Your task to perform on an android device: Go to ESPN.com Image 0: 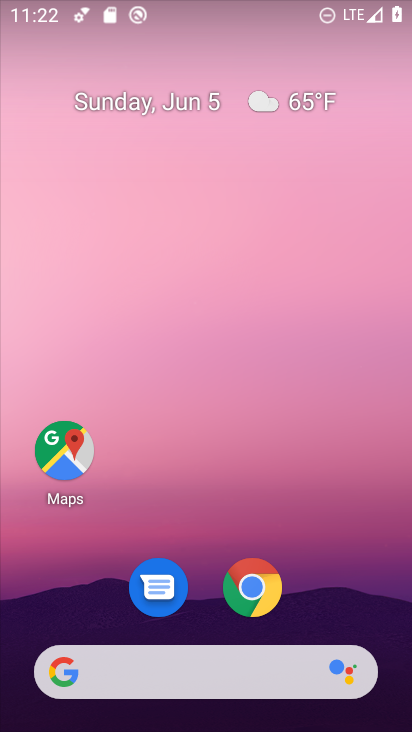
Step 0: click (251, 593)
Your task to perform on an android device: Go to ESPN.com Image 1: 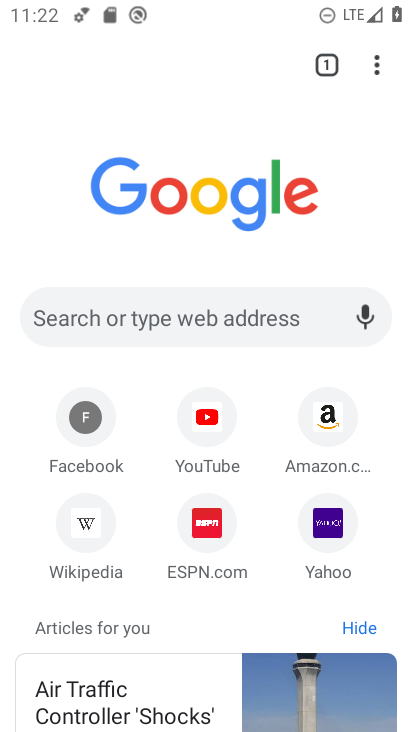
Step 1: click (200, 540)
Your task to perform on an android device: Go to ESPN.com Image 2: 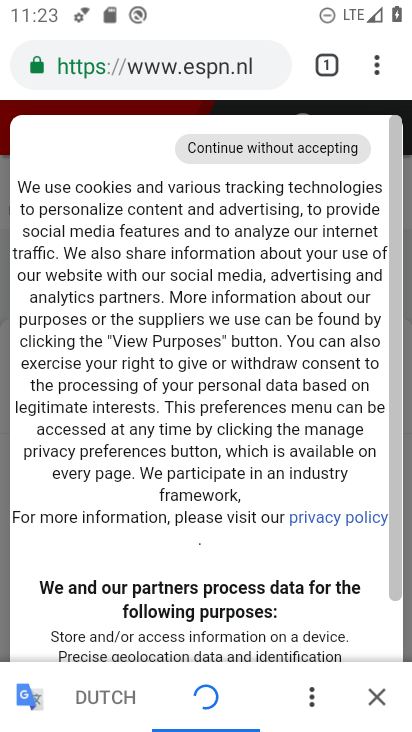
Step 2: task complete